Your task to perform on an android device: Search for usb-b on target.com, select the first entry, add it to the cart, then select checkout. Image 0: 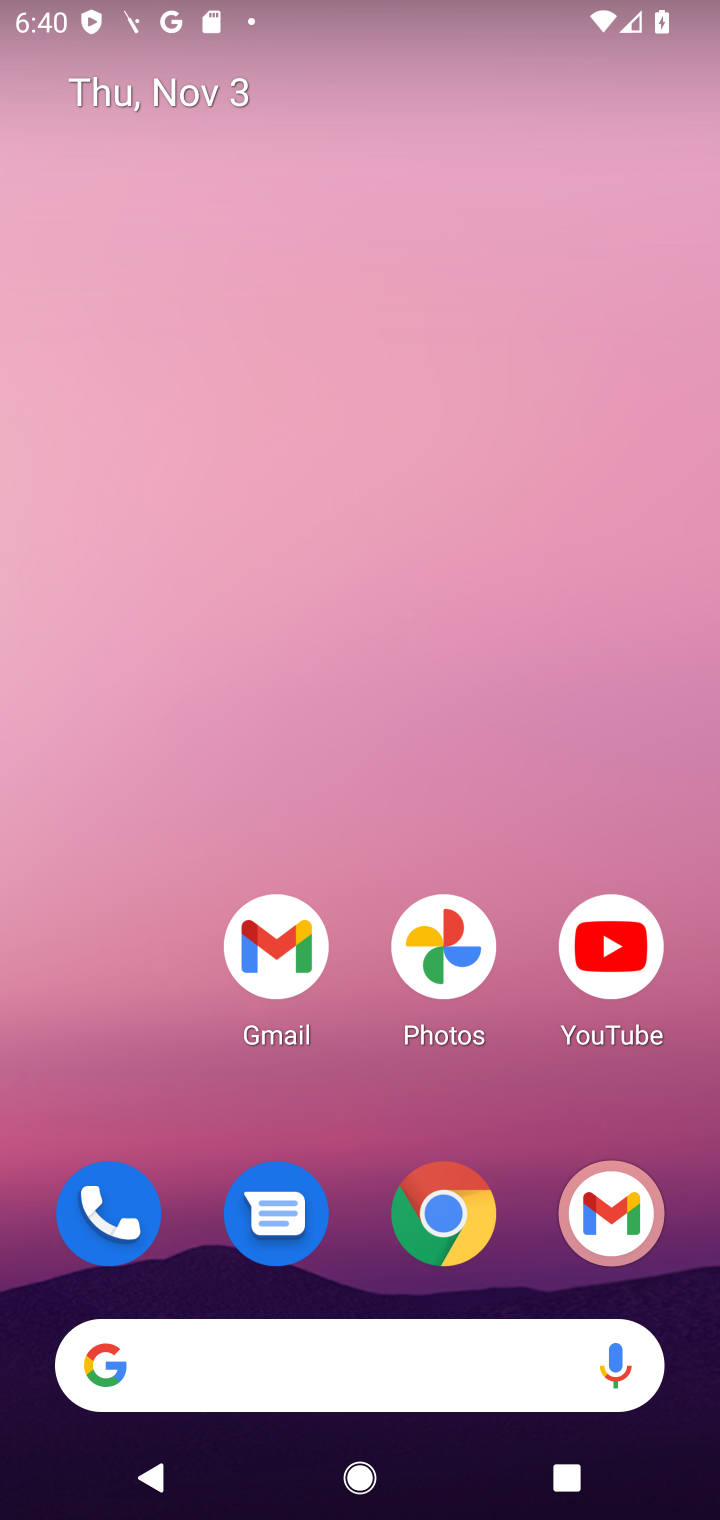
Step 0: click (452, 1227)
Your task to perform on an android device: Search for usb-b on target.com, select the first entry, add it to the cart, then select checkout. Image 1: 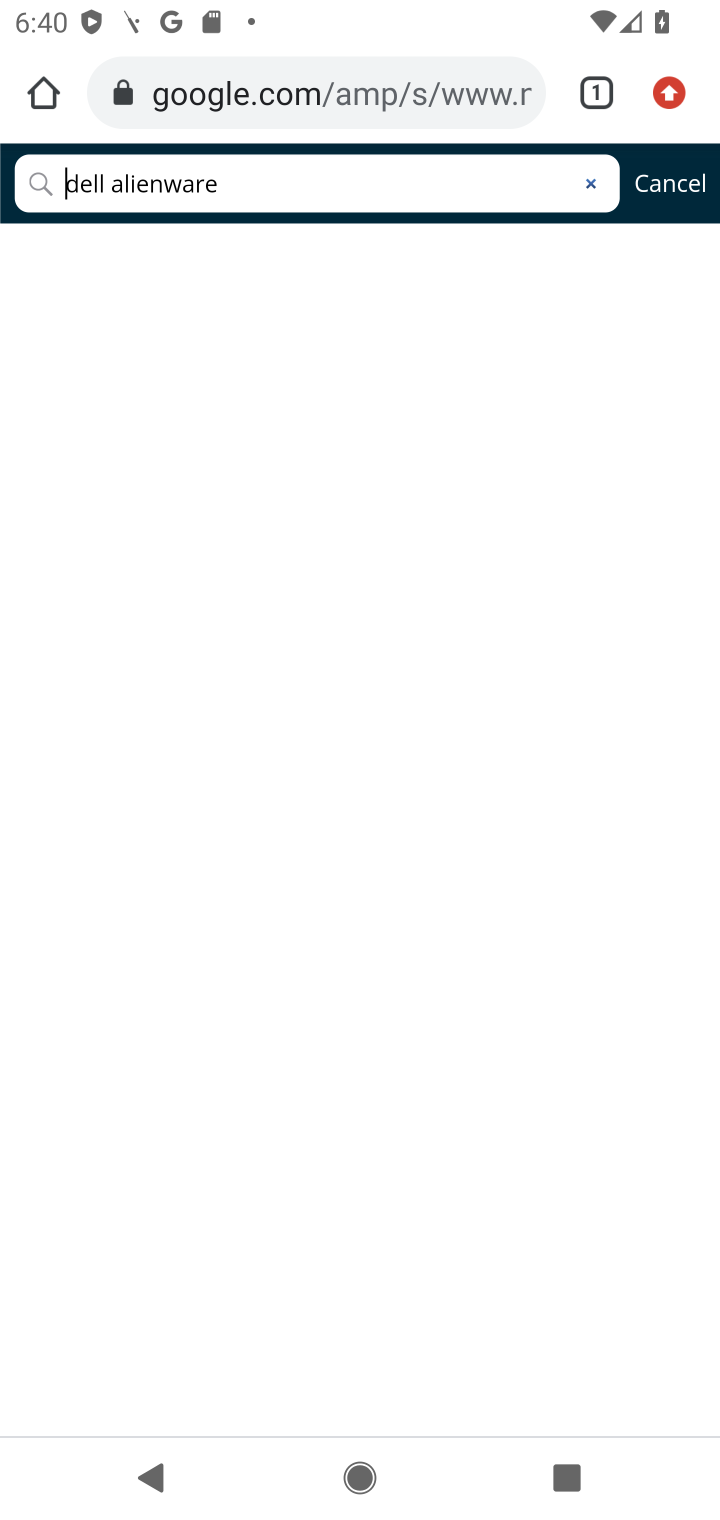
Step 1: click (312, 96)
Your task to perform on an android device: Search for usb-b on target.com, select the first entry, add it to the cart, then select checkout. Image 2: 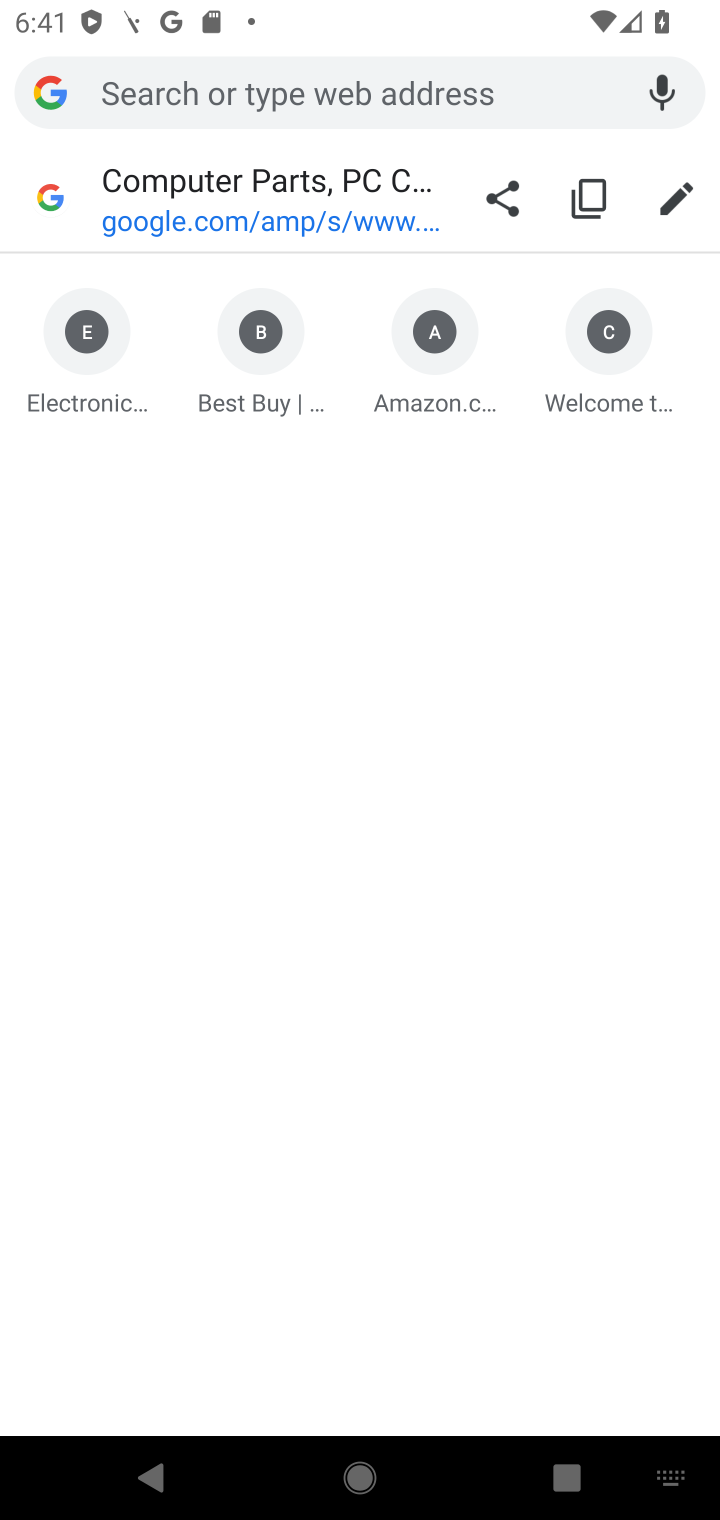
Step 2: type "target.com"
Your task to perform on an android device: Search for usb-b on target.com, select the first entry, add it to the cart, then select checkout. Image 3: 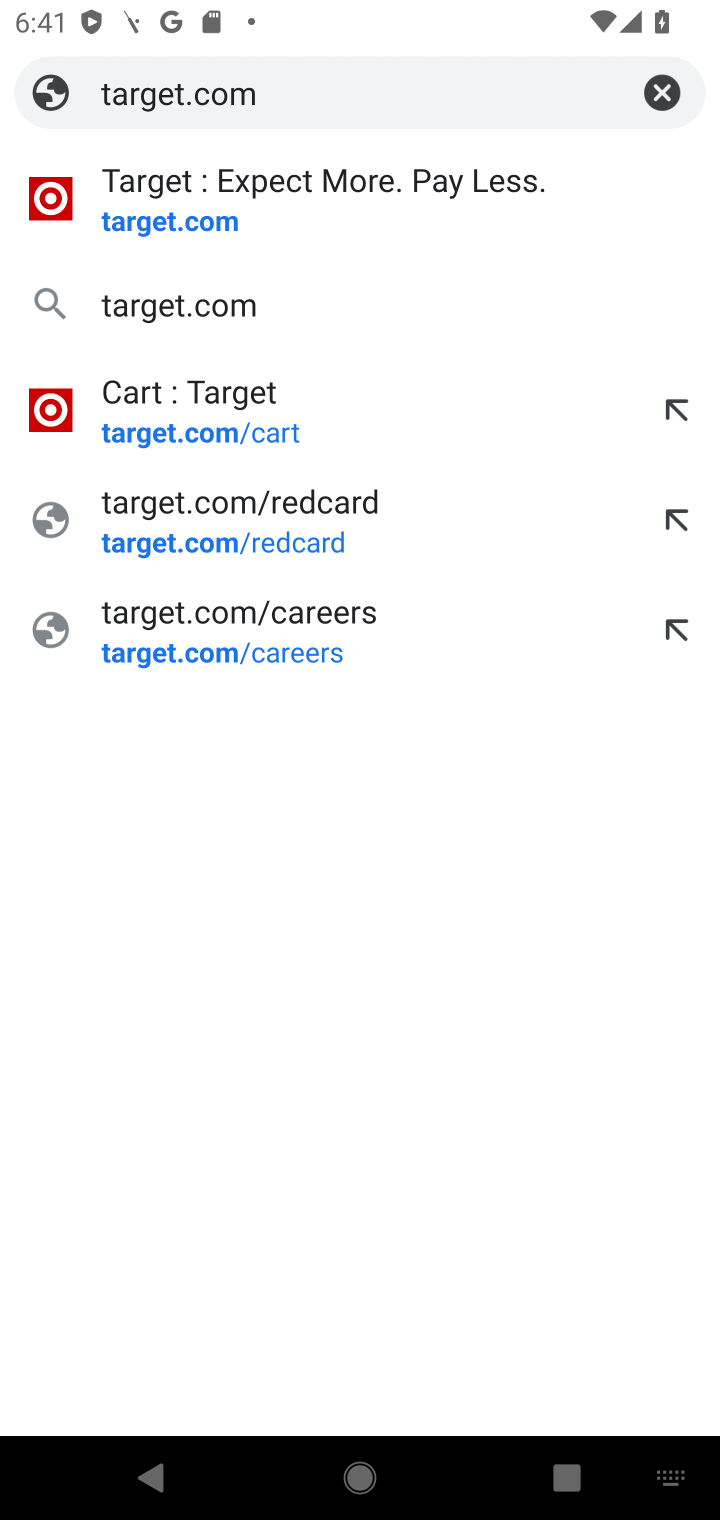
Step 3: click (138, 235)
Your task to perform on an android device: Search for usb-b on target.com, select the first entry, add it to the cart, then select checkout. Image 4: 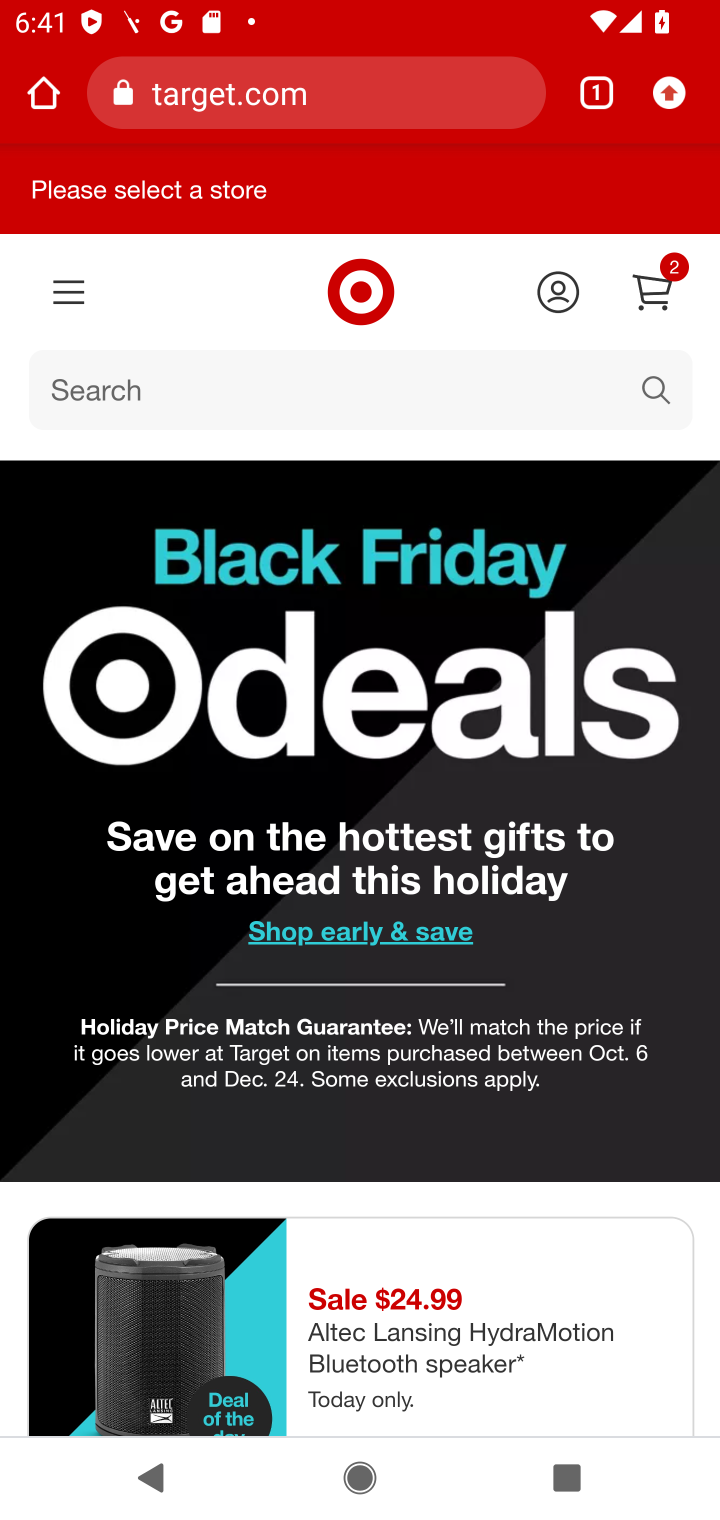
Step 4: click (151, 393)
Your task to perform on an android device: Search for usb-b on target.com, select the first entry, add it to the cart, then select checkout. Image 5: 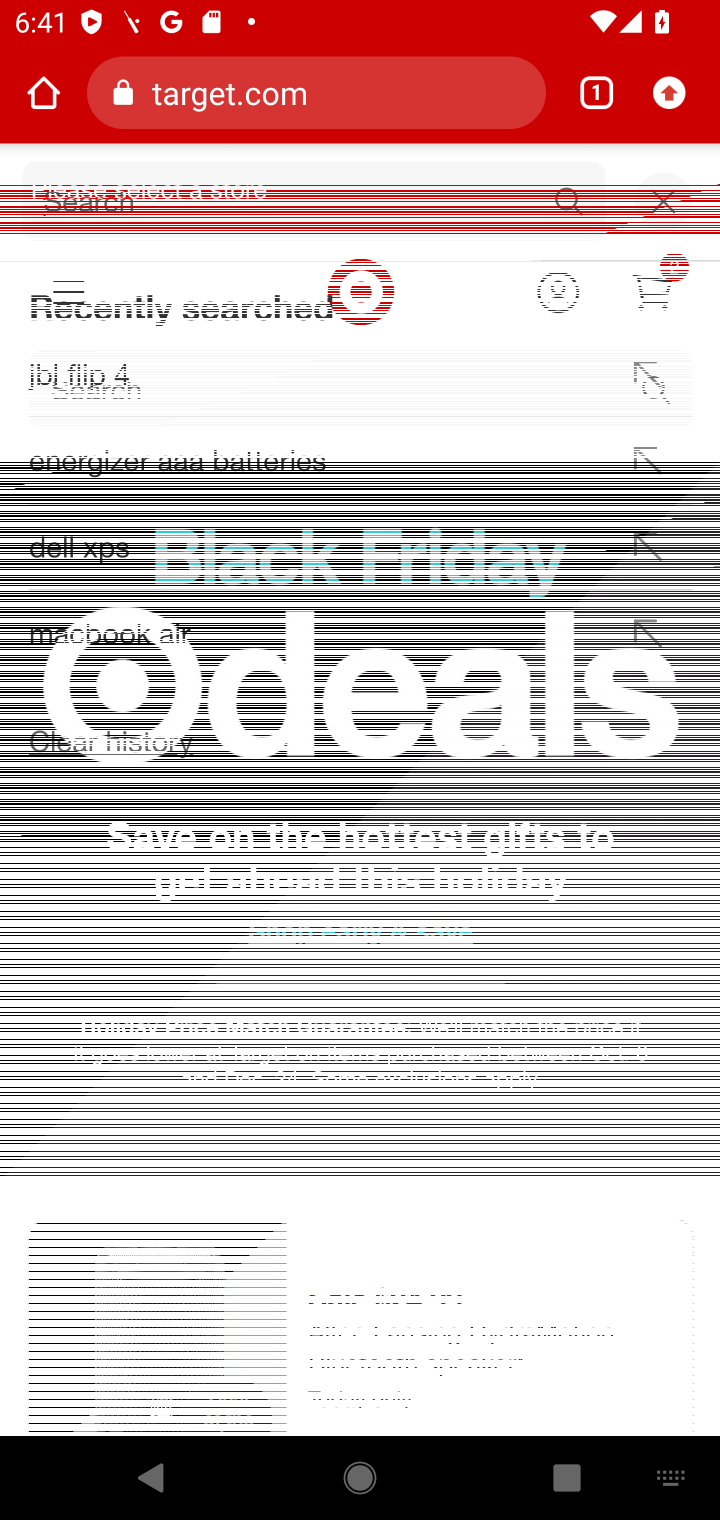
Step 5: type "usb-b"
Your task to perform on an android device: Search for usb-b on target.com, select the first entry, add it to the cart, then select checkout. Image 6: 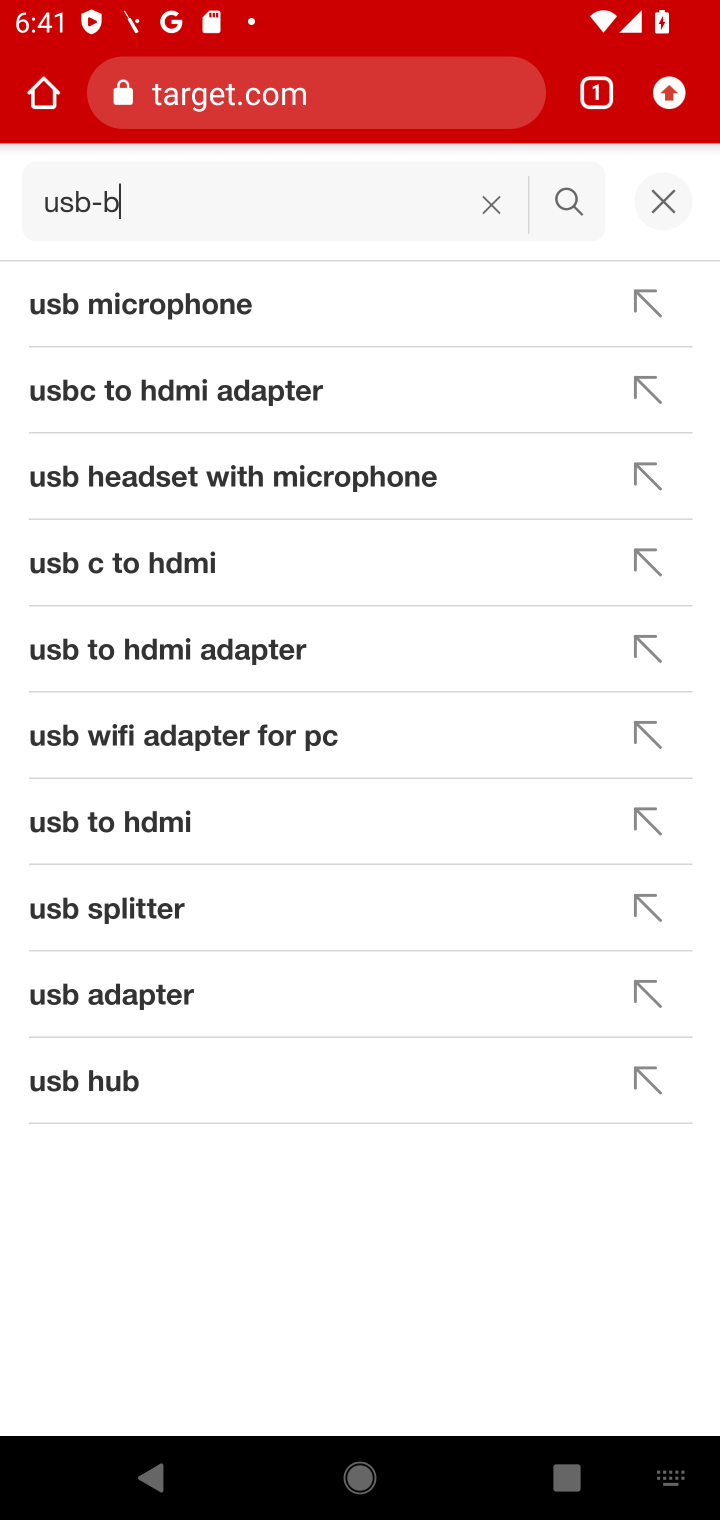
Step 6: click (561, 193)
Your task to perform on an android device: Search for usb-b on target.com, select the first entry, add it to the cart, then select checkout. Image 7: 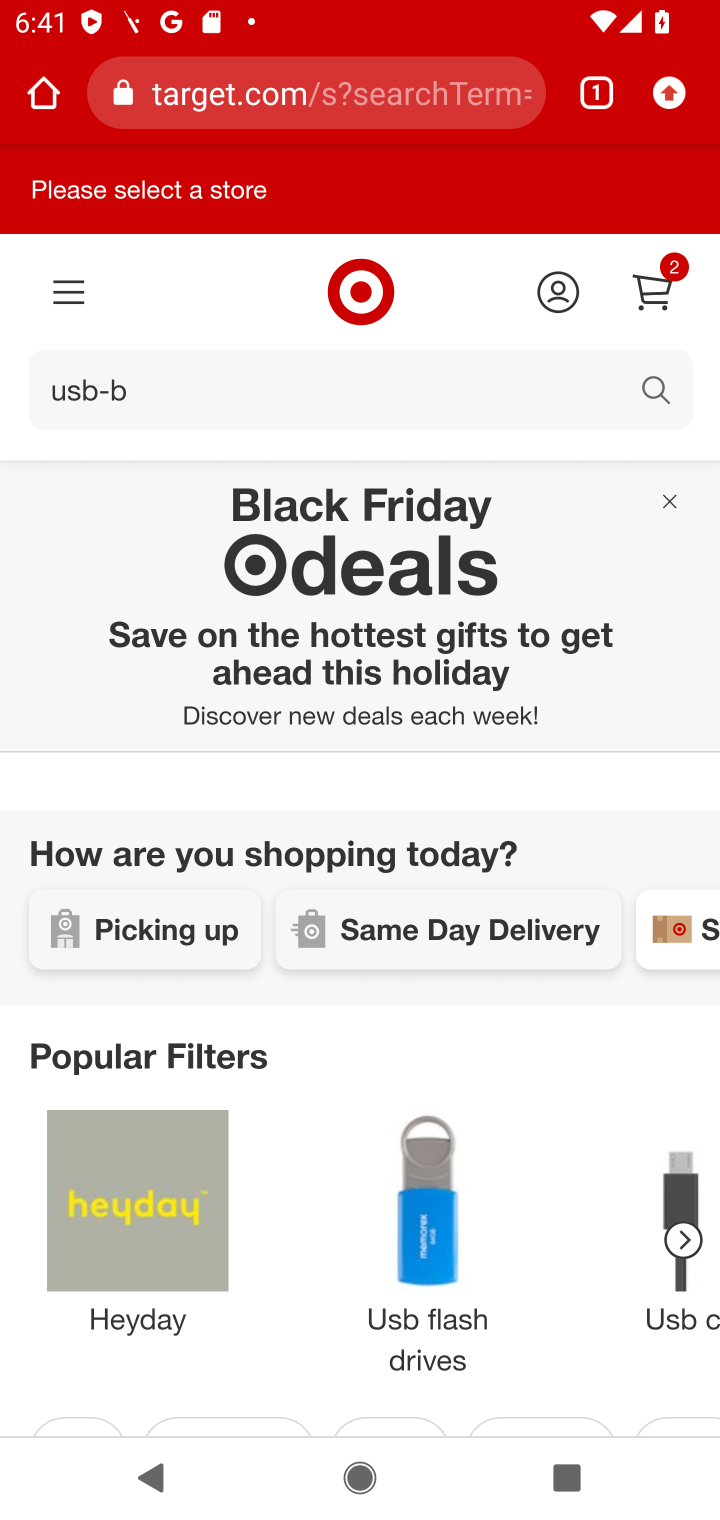
Step 7: task complete